Your task to perform on an android device: Open accessibility settings Image 0: 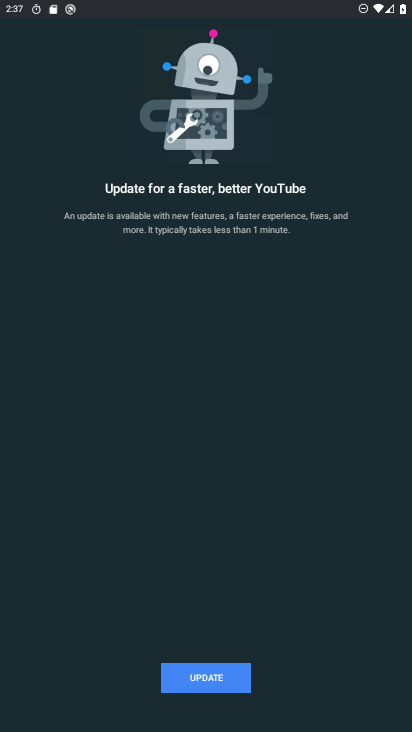
Step 0: press home button
Your task to perform on an android device: Open accessibility settings Image 1: 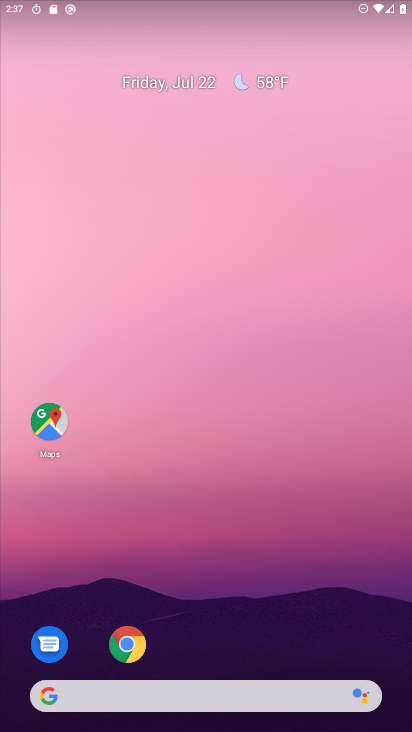
Step 1: drag from (217, 623) to (186, 175)
Your task to perform on an android device: Open accessibility settings Image 2: 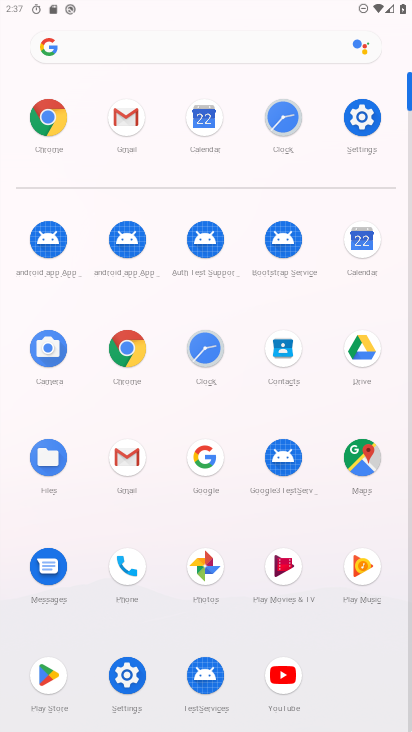
Step 2: click (346, 132)
Your task to perform on an android device: Open accessibility settings Image 3: 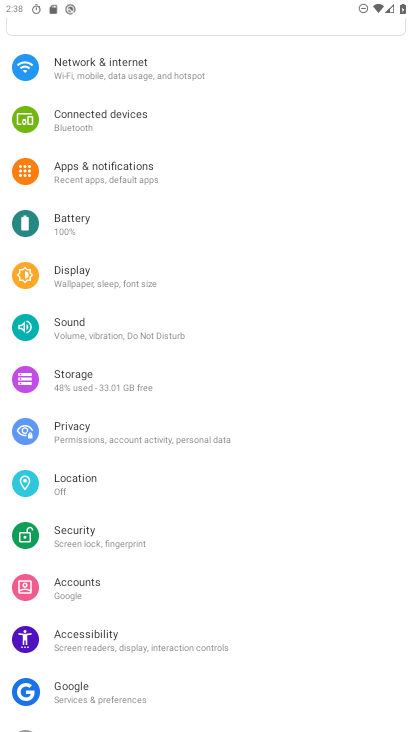
Step 3: click (140, 642)
Your task to perform on an android device: Open accessibility settings Image 4: 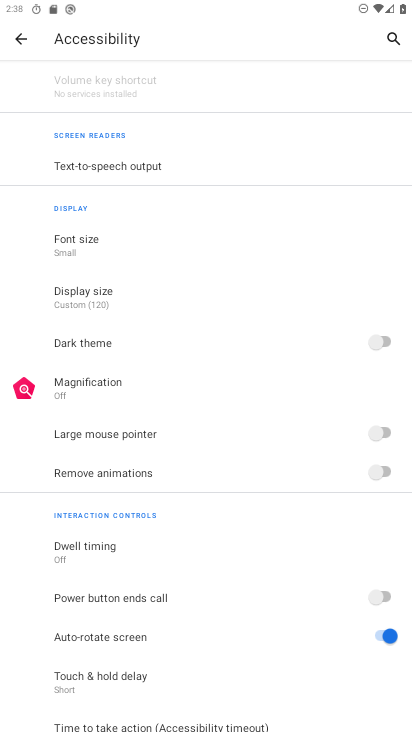
Step 4: task complete